Your task to perform on an android device: Open the camera Image 0: 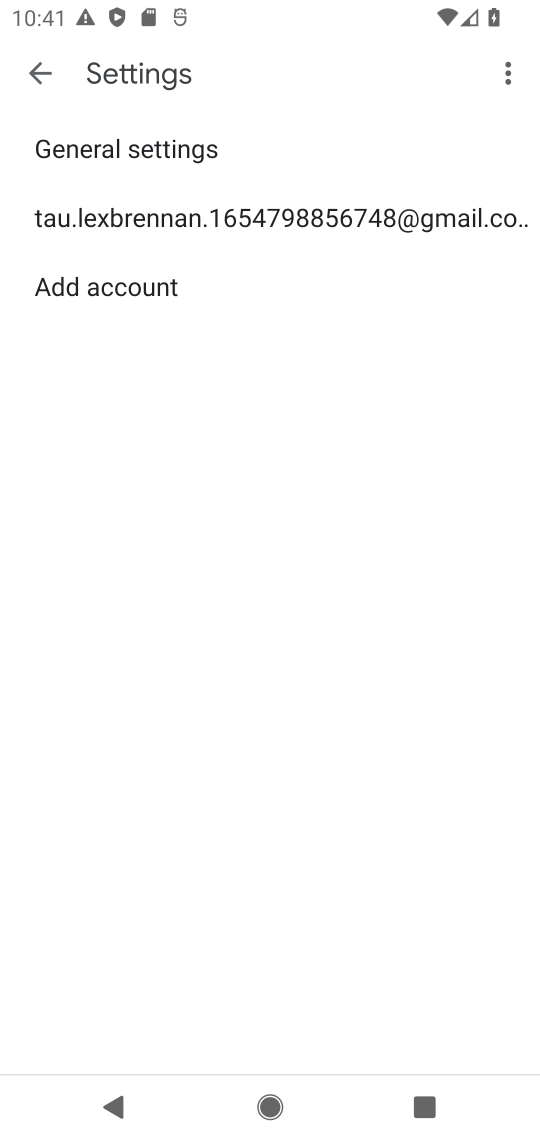
Step 0: press home button
Your task to perform on an android device: Open the camera Image 1: 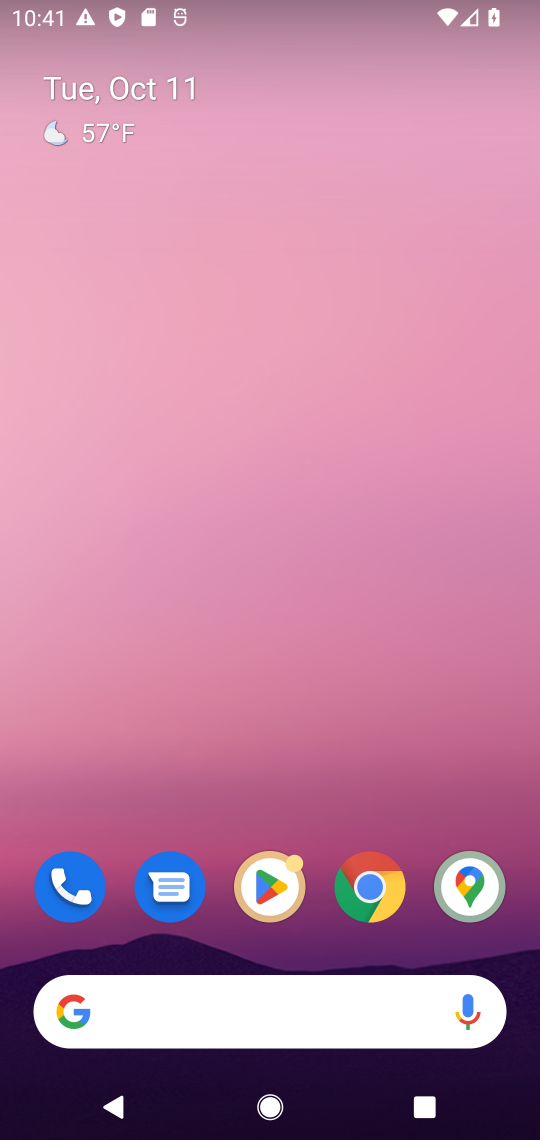
Step 1: task complete